Your task to perform on an android device: See recent photos Image 0: 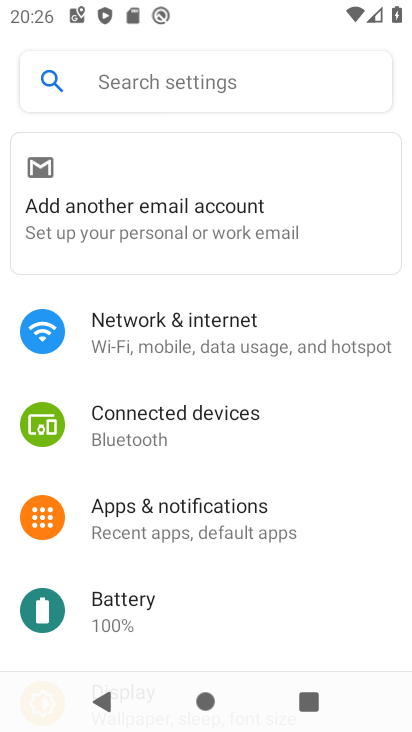
Step 0: press home button
Your task to perform on an android device: See recent photos Image 1: 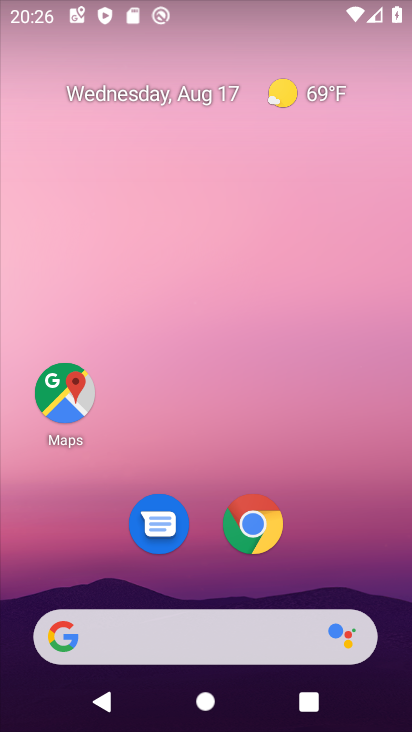
Step 1: drag from (328, 548) to (371, 31)
Your task to perform on an android device: See recent photos Image 2: 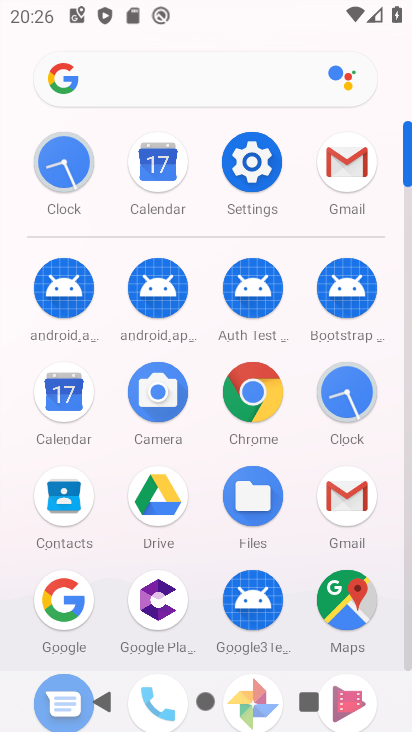
Step 2: drag from (288, 387) to (303, 83)
Your task to perform on an android device: See recent photos Image 3: 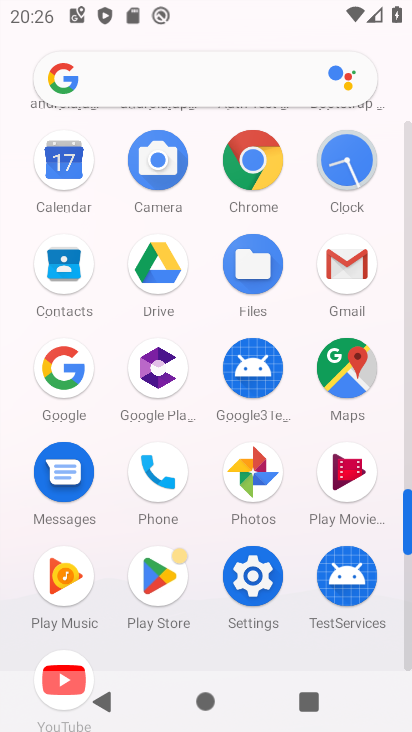
Step 3: click (262, 466)
Your task to perform on an android device: See recent photos Image 4: 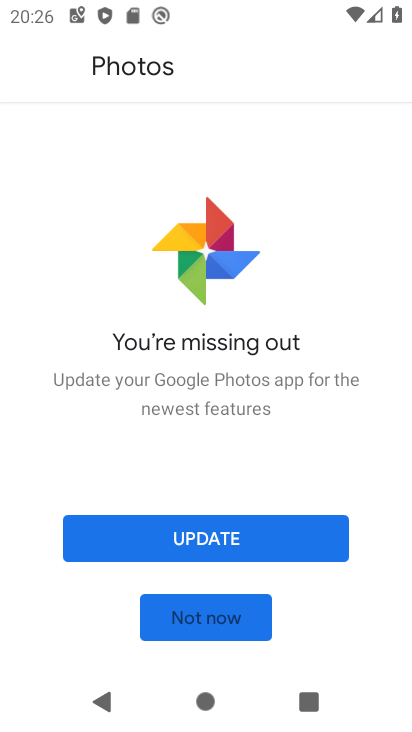
Step 4: click (244, 620)
Your task to perform on an android device: See recent photos Image 5: 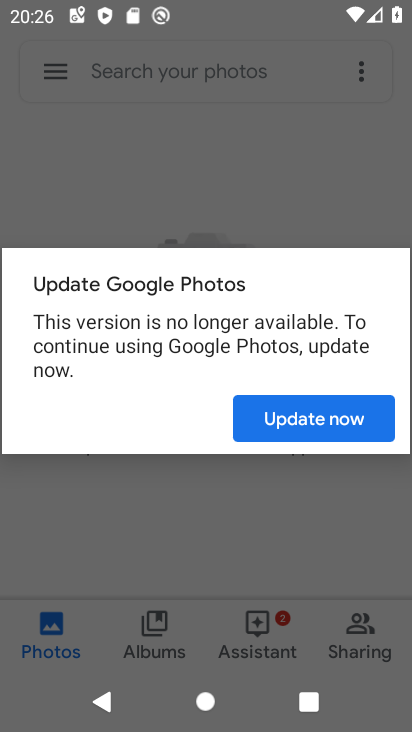
Step 5: click (297, 423)
Your task to perform on an android device: See recent photos Image 6: 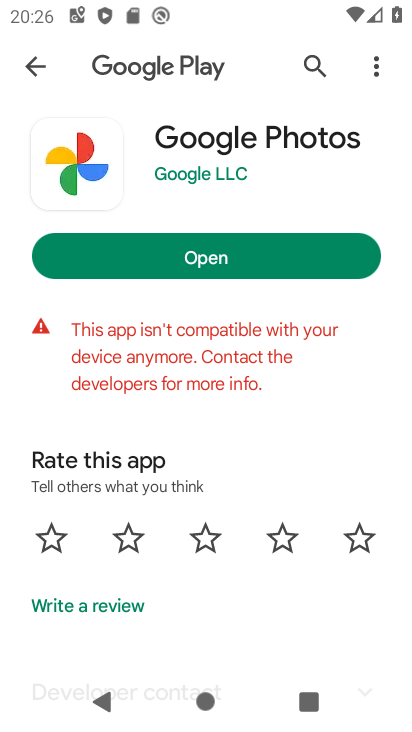
Step 6: click (303, 252)
Your task to perform on an android device: See recent photos Image 7: 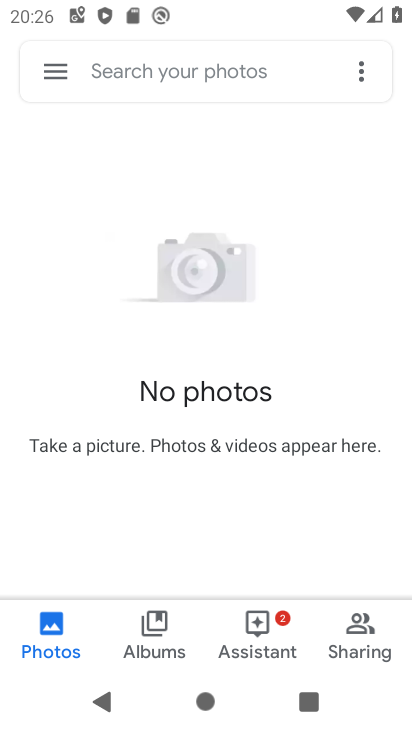
Step 7: click (49, 627)
Your task to perform on an android device: See recent photos Image 8: 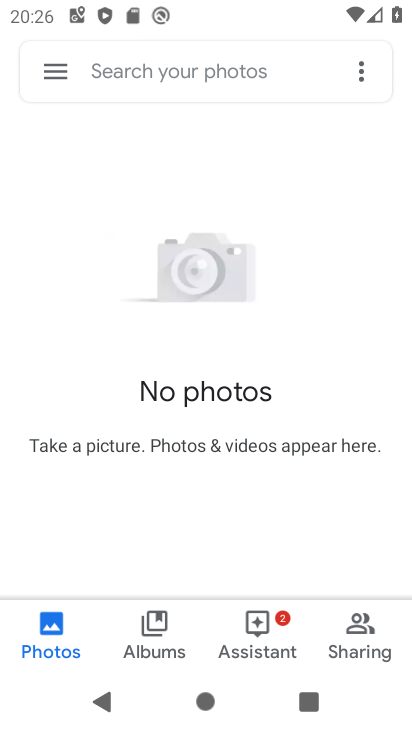
Step 8: task complete